Your task to perform on an android device: allow cookies in the chrome app Image 0: 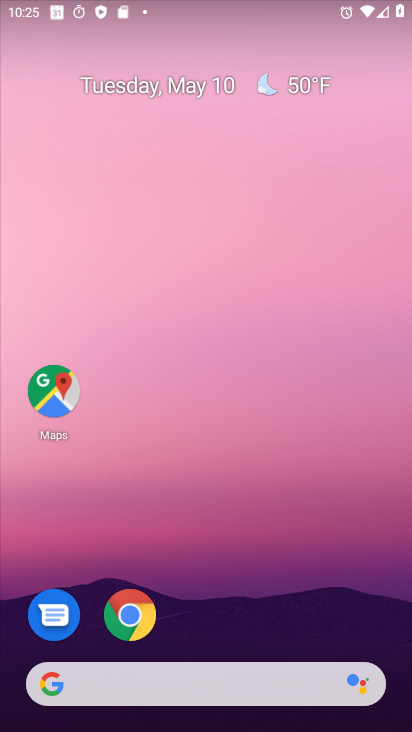
Step 0: click (124, 611)
Your task to perform on an android device: allow cookies in the chrome app Image 1: 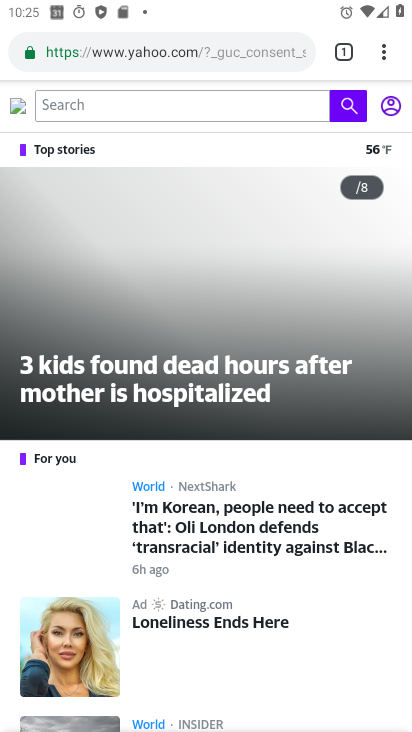
Step 1: click (378, 48)
Your task to perform on an android device: allow cookies in the chrome app Image 2: 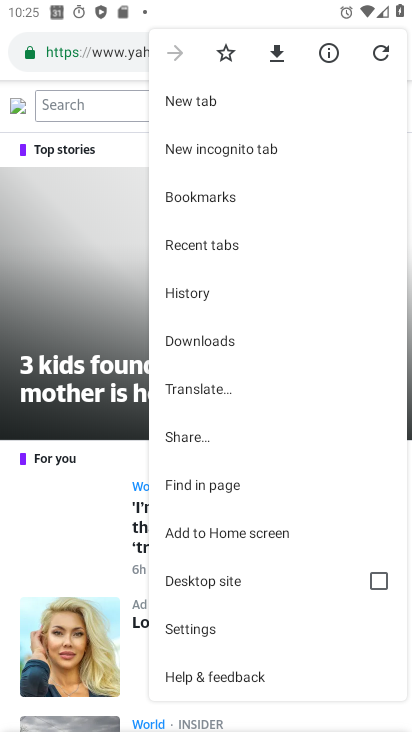
Step 2: click (212, 626)
Your task to perform on an android device: allow cookies in the chrome app Image 3: 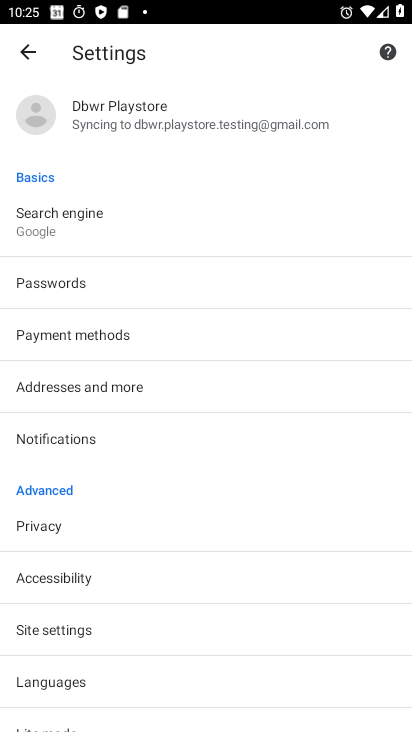
Step 3: click (97, 622)
Your task to perform on an android device: allow cookies in the chrome app Image 4: 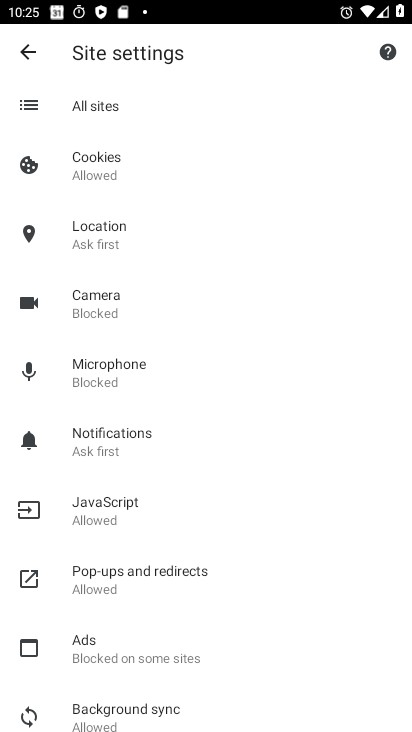
Step 4: click (131, 148)
Your task to perform on an android device: allow cookies in the chrome app Image 5: 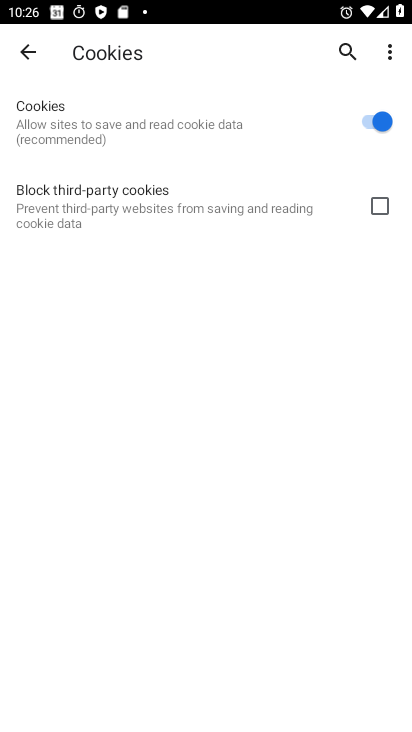
Step 5: task complete